Your task to perform on an android device: Go to Android settings Image 0: 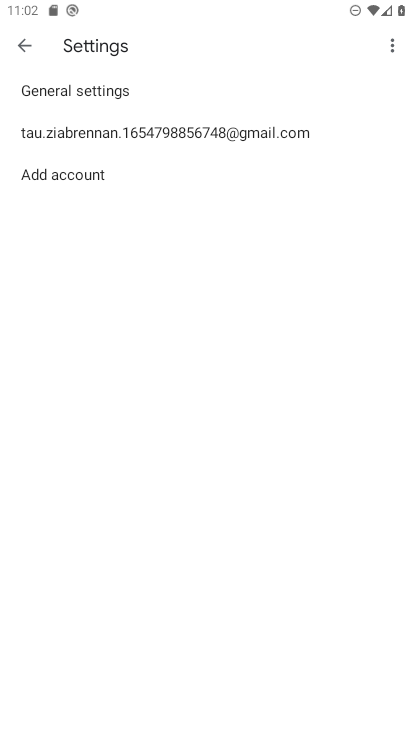
Step 0: press home button
Your task to perform on an android device: Go to Android settings Image 1: 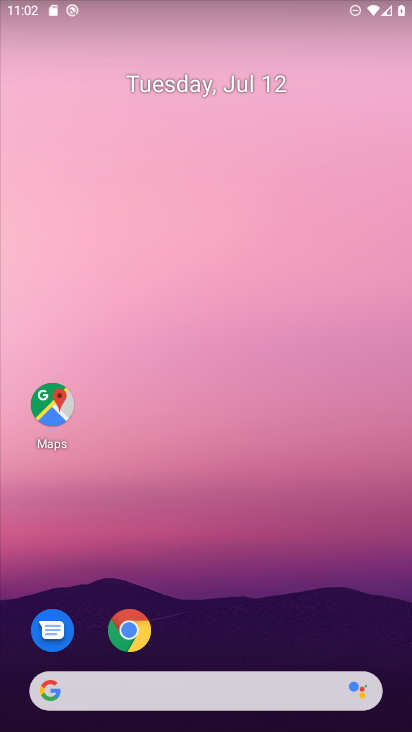
Step 1: drag from (238, 385) to (231, 34)
Your task to perform on an android device: Go to Android settings Image 2: 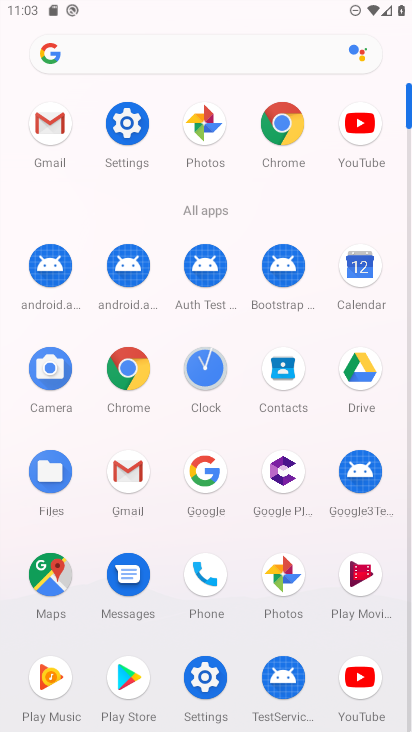
Step 2: click (128, 114)
Your task to perform on an android device: Go to Android settings Image 3: 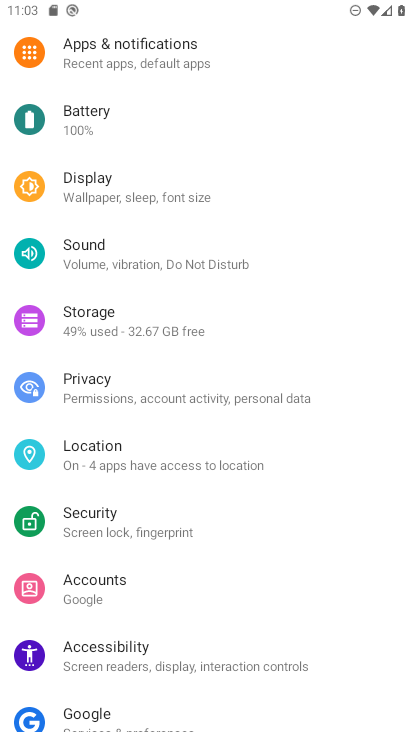
Step 3: task complete